Your task to perform on an android device: Open accessibility settings Image 0: 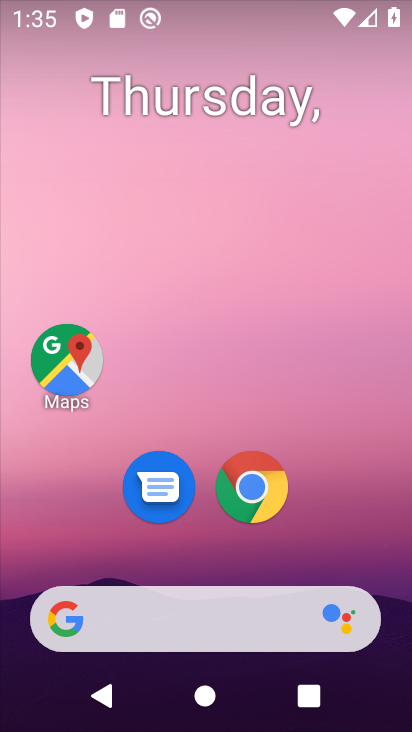
Step 0: drag from (224, 544) to (301, 13)
Your task to perform on an android device: Open accessibility settings Image 1: 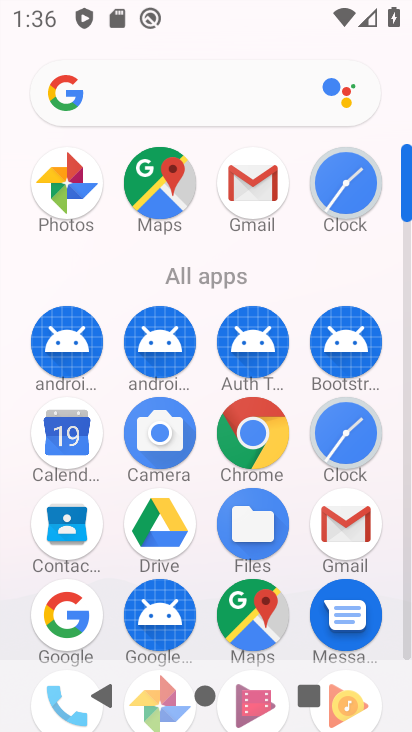
Step 1: drag from (190, 611) to (216, 45)
Your task to perform on an android device: Open accessibility settings Image 2: 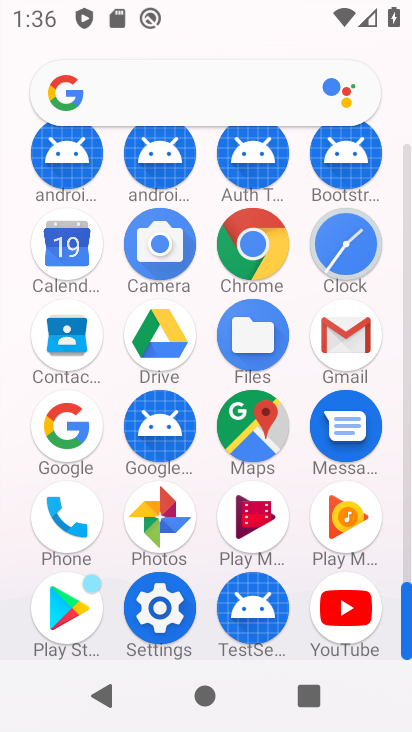
Step 2: click (164, 604)
Your task to perform on an android device: Open accessibility settings Image 3: 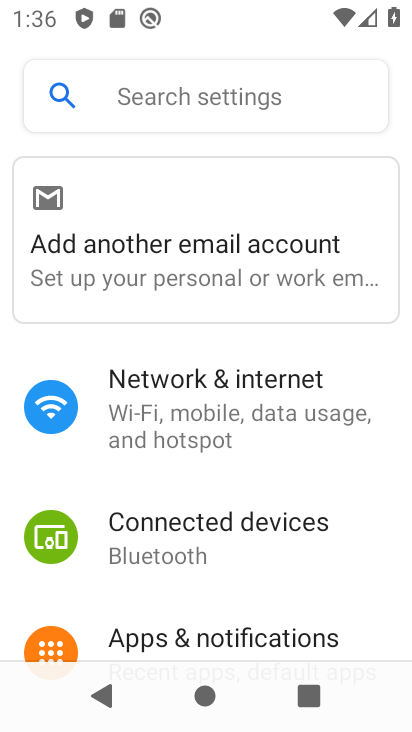
Step 3: drag from (234, 604) to (287, 100)
Your task to perform on an android device: Open accessibility settings Image 4: 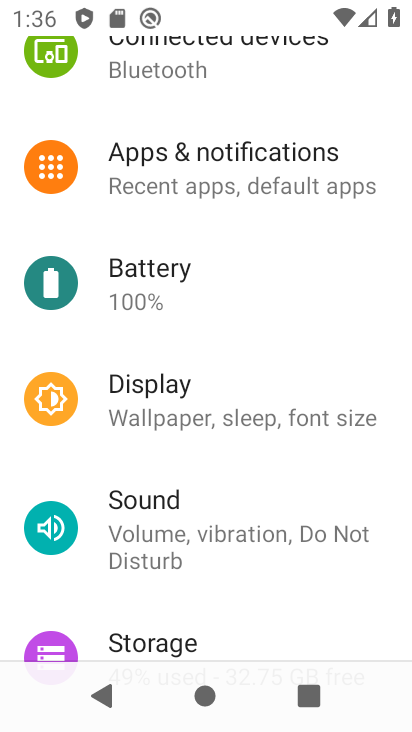
Step 4: drag from (183, 592) to (244, 195)
Your task to perform on an android device: Open accessibility settings Image 5: 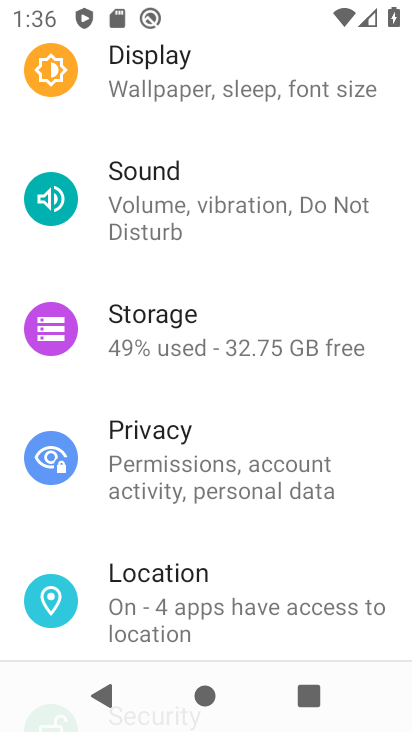
Step 5: drag from (156, 578) to (269, 140)
Your task to perform on an android device: Open accessibility settings Image 6: 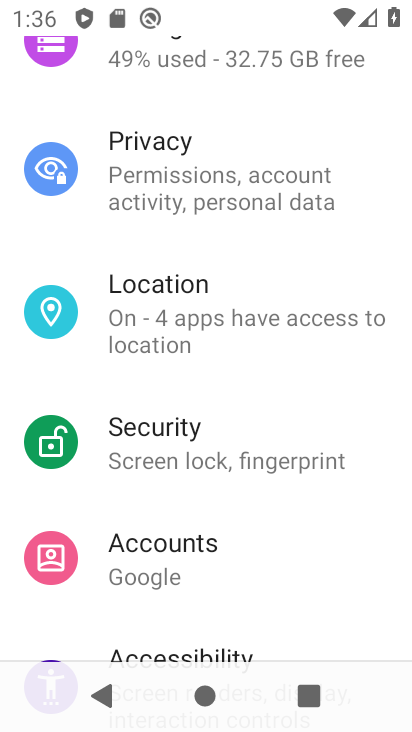
Step 6: drag from (121, 626) to (230, 254)
Your task to perform on an android device: Open accessibility settings Image 7: 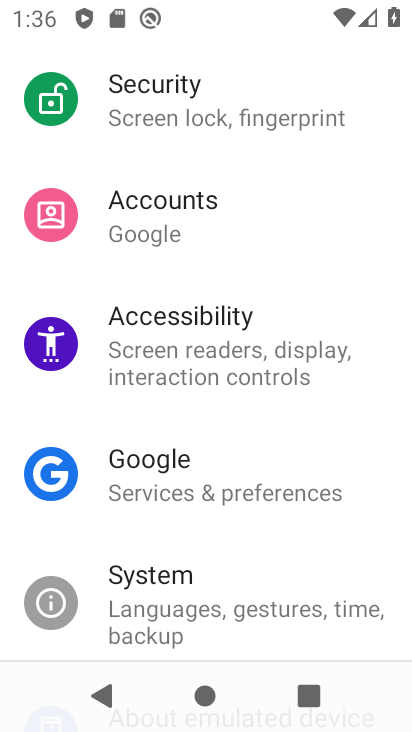
Step 7: click (175, 380)
Your task to perform on an android device: Open accessibility settings Image 8: 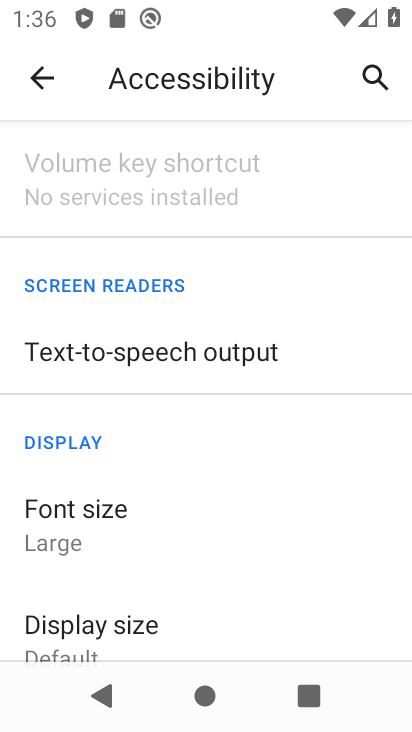
Step 8: task complete